Your task to perform on an android device: stop showing notifications on the lock screen Image 0: 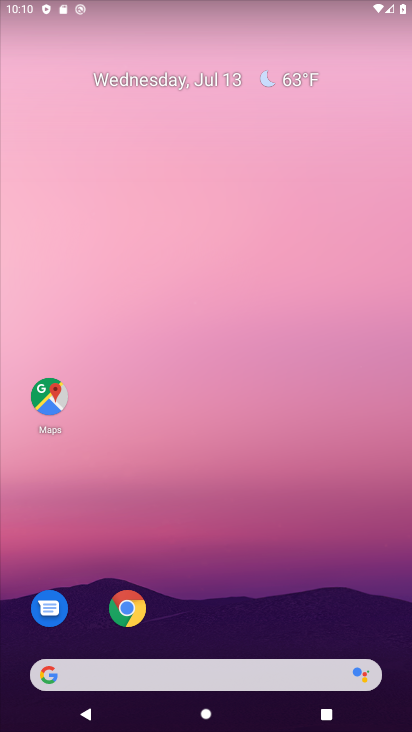
Step 0: drag from (205, 633) to (153, 49)
Your task to perform on an android device: stop showing notifications on the lock screen Image 1: 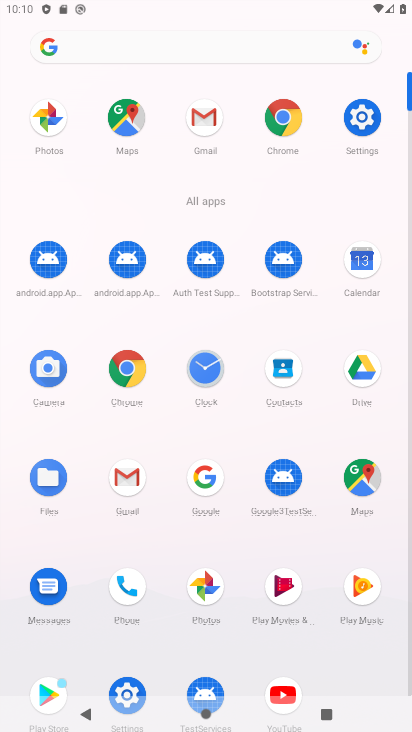
Step 1: click (363, 117)
Your task to perform on an android device: stop showing notifications on the lock screen Image 2: 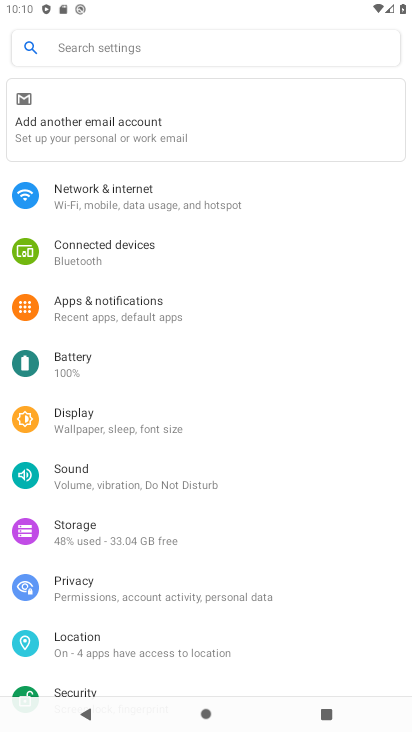
Step 2: drag from (217, 576) to (184, 201)
Your task to perform on an android device: stop showing notifications on the lock screen Image 3: 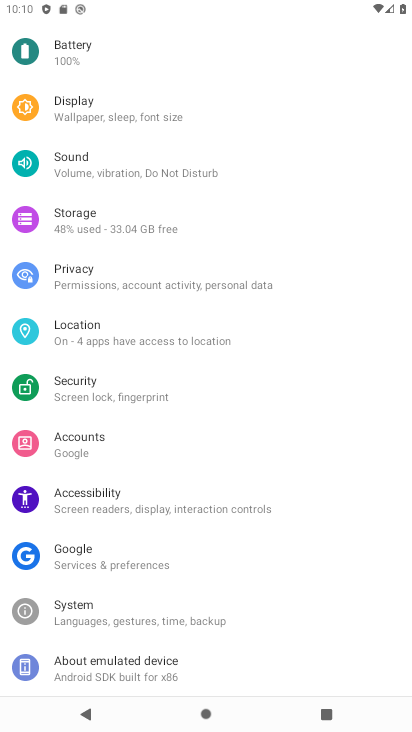
Step 3: drag from (96, 76) to (96, 535)
Your task to perform on an android device: stop showing notifications on the lock screen Image 4: 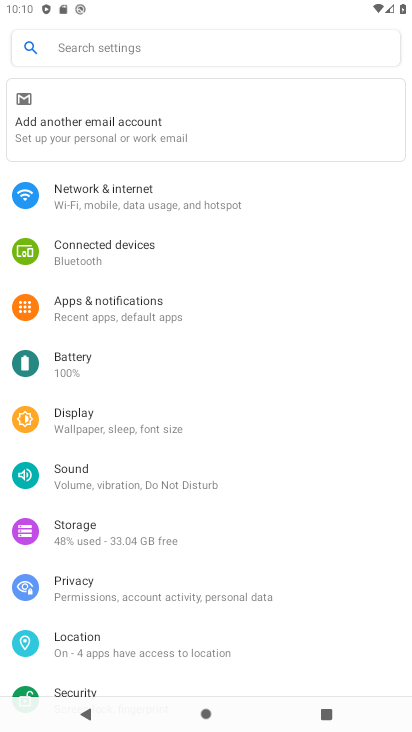
Step 4: drag from (114, 194) to (392, 284)
Your task to perform on an android device: stop showing notifications on the lock screen Image 5: 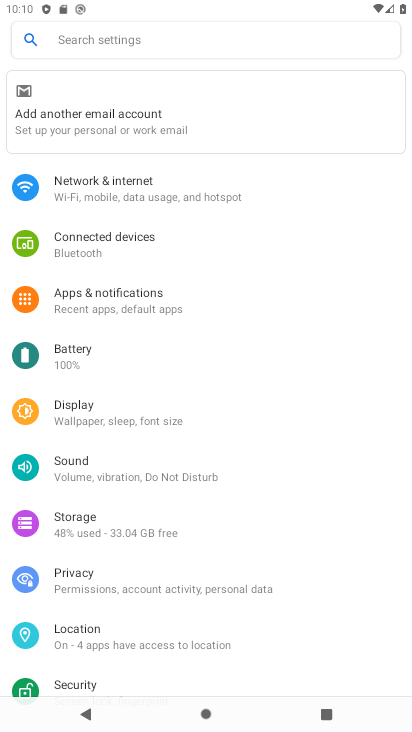
Step 5: click (96, 301)
Your task to perform on an android device: stop showing notifications on the lock screen Image 6: 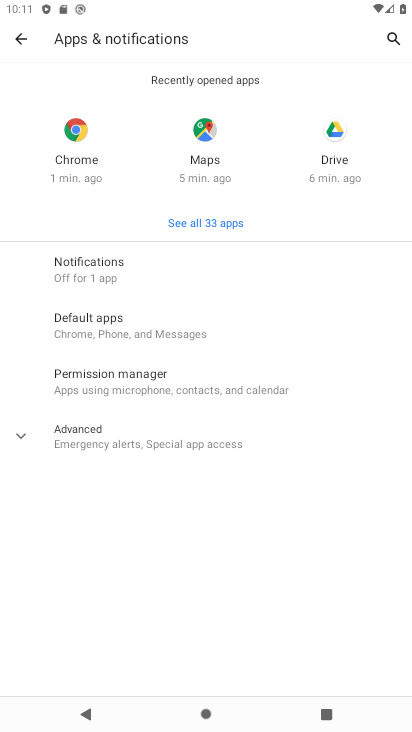
Step 6: click (102, 263)
Your task to perform on an android device: stop showing notifications on the lock screen Image 7: 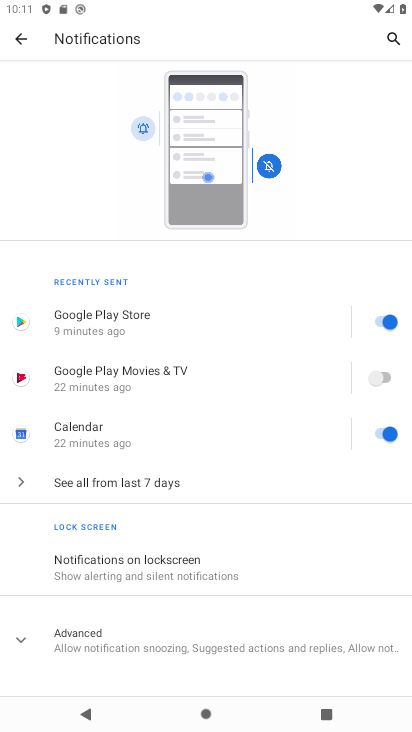
Step 7: click (202, 567)
Your task to perform on an android device: stop showing notifications on the lock screen Image 8: 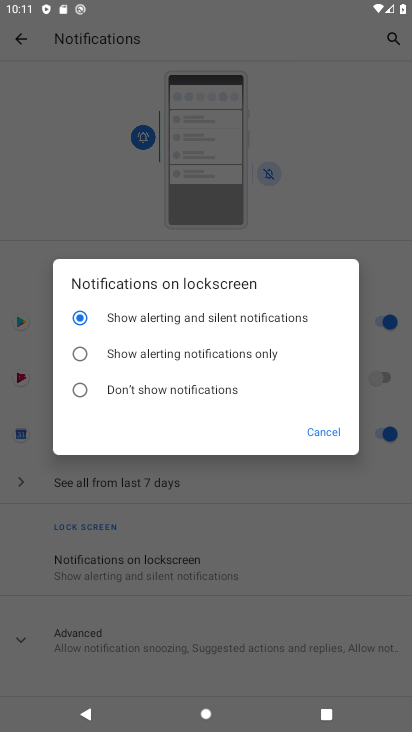
Step 8: click (106, 383)
Your task to perform on an android device: stop showing notifications on the lock screen Image 9: 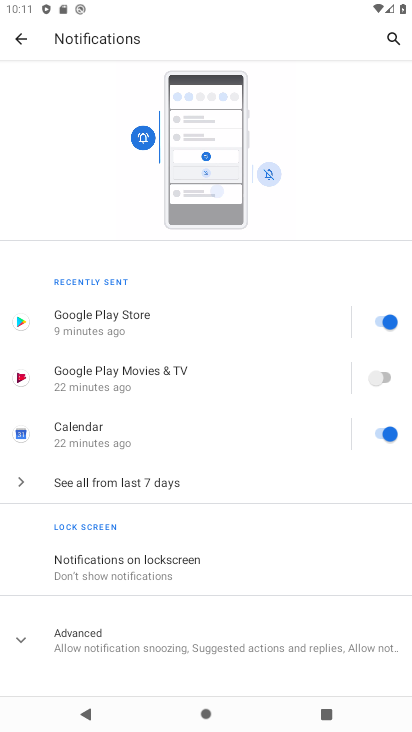
Step 9: task complete